Your task to perform on an android device: When is my next appointment? Image 0: 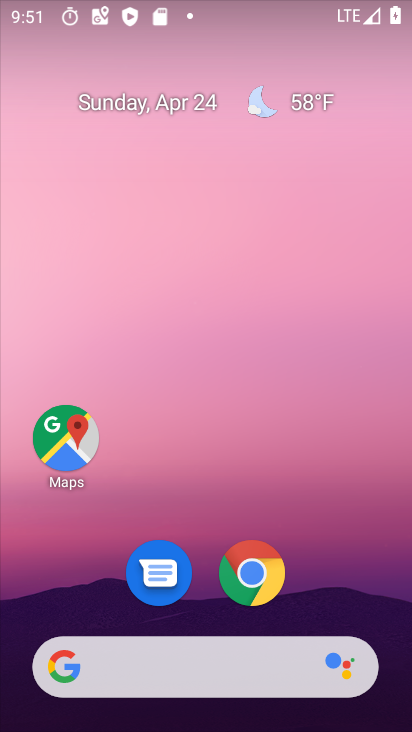
Step 0: drag from (309, 605) to (378, 191)
Your task to perform on an android device: When is my next appointment? Image 1: 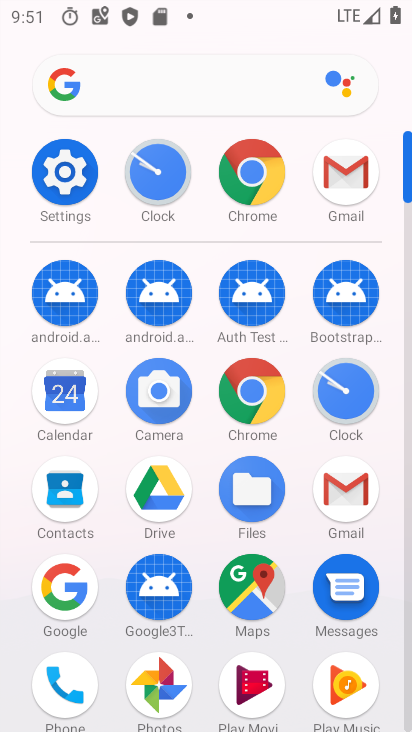
Step 1: click (74, 406)
Your task to perform on an android device: When is my next appointment? Image 2: 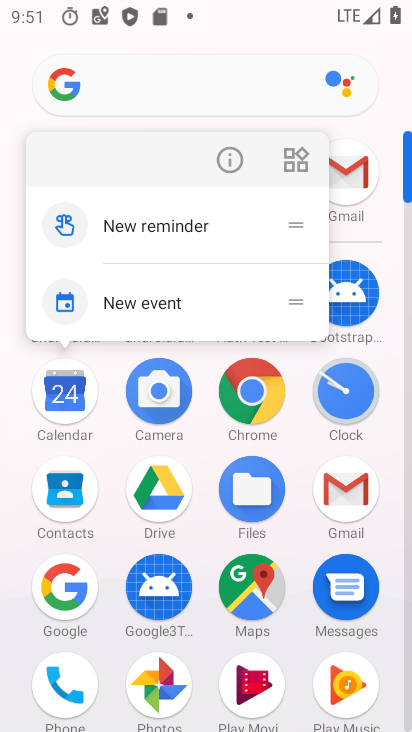
Step 2: click (75, 404)
Your task to perform on an android device: When is my next appointment? Image 3: 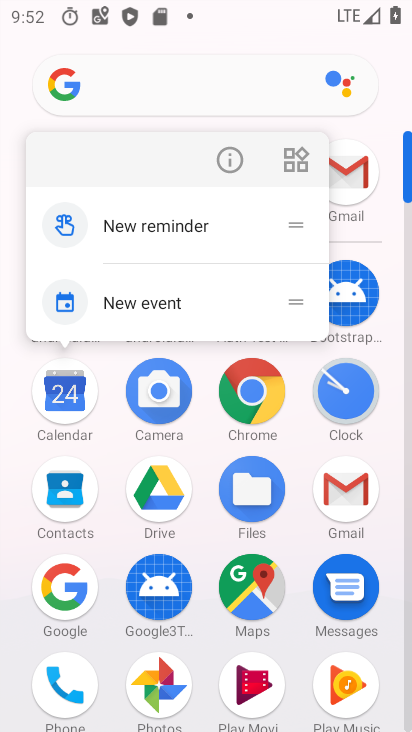
Step 3: click (67, 421)
Your task to perform on an android device: When is my next appointment? Image 4: 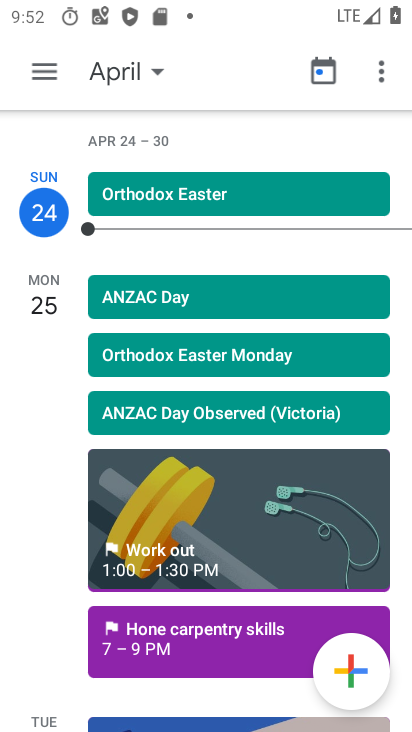
Step 4: task complete